Your task to perform on an android device: delete the emails in spam in the gmail app Image 0: 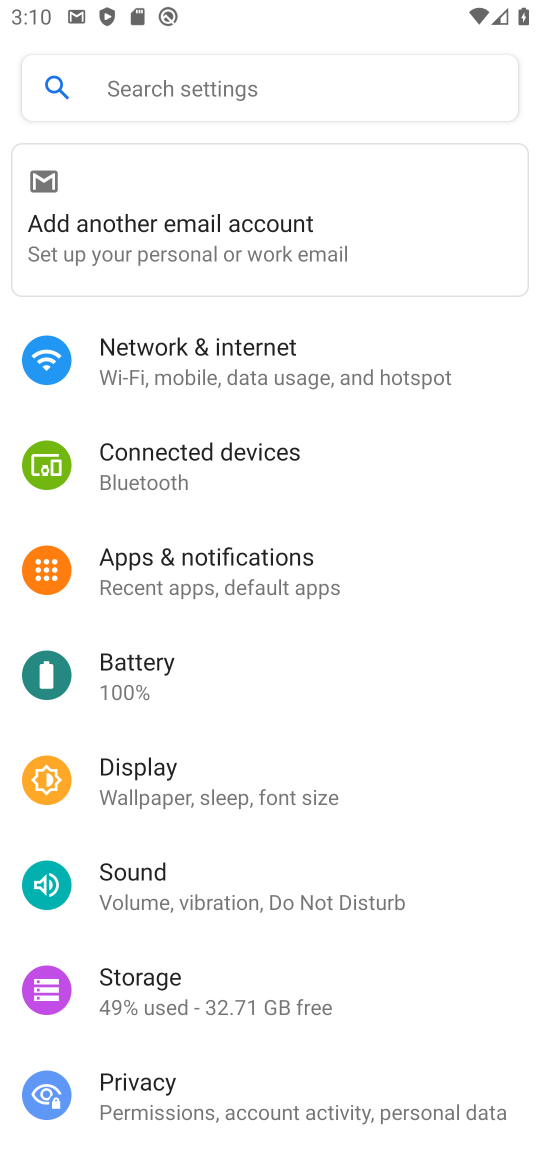
Step 0: press home button
Your task to perform on an android device: delete the emails in spam in the gmail app Image 1: 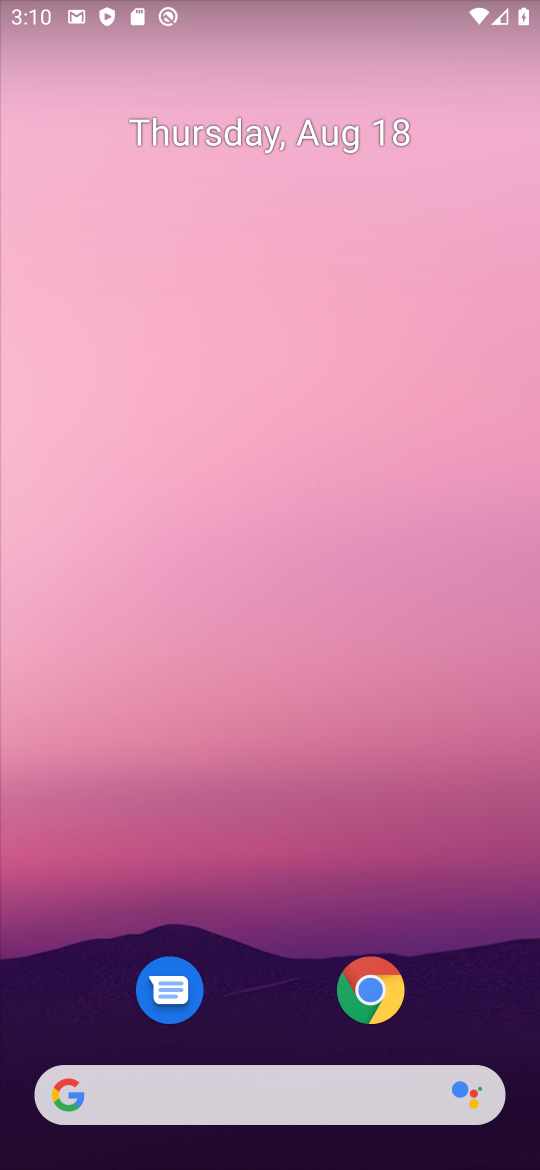
Step 1: drag from (262, 856) to (271, 5)
Your task to perform on an android device: delete the emails in spam in the gmail app Image 2: 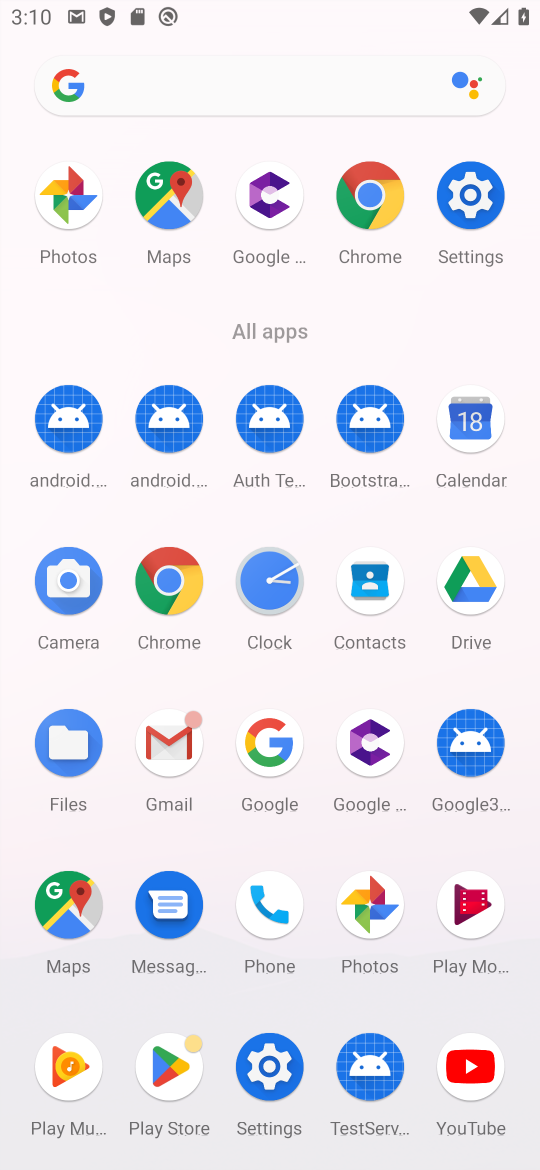
Step 2: click (174, 742)
Your task to perform on an android device: delete the emails in spam in the gmail app Image 3: 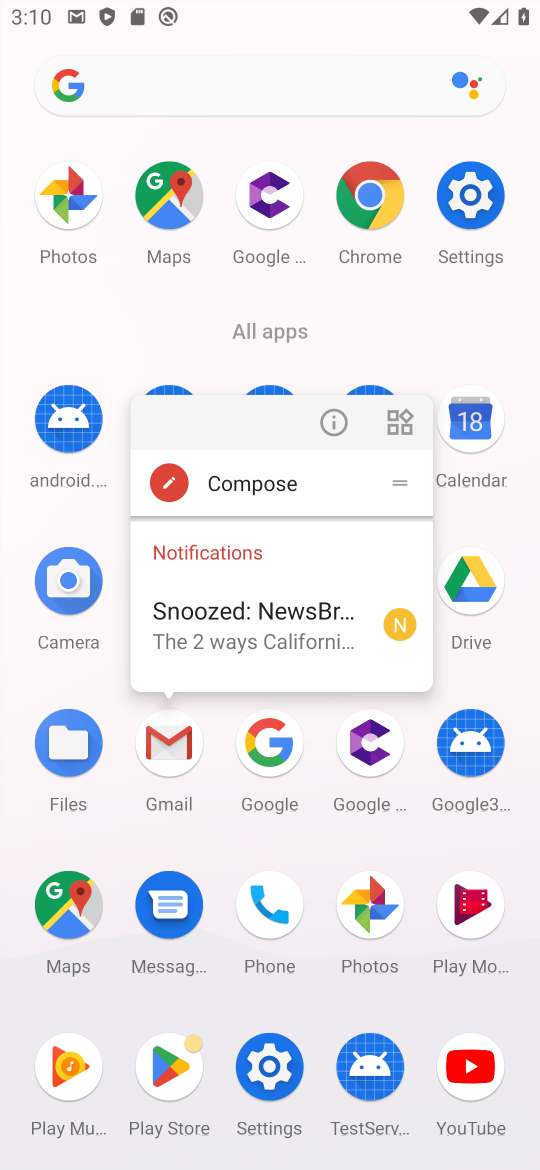
Step 3: click (166, 746)
Your task to perform on an android device: delete the emails in spam in the gmail app Image 4: 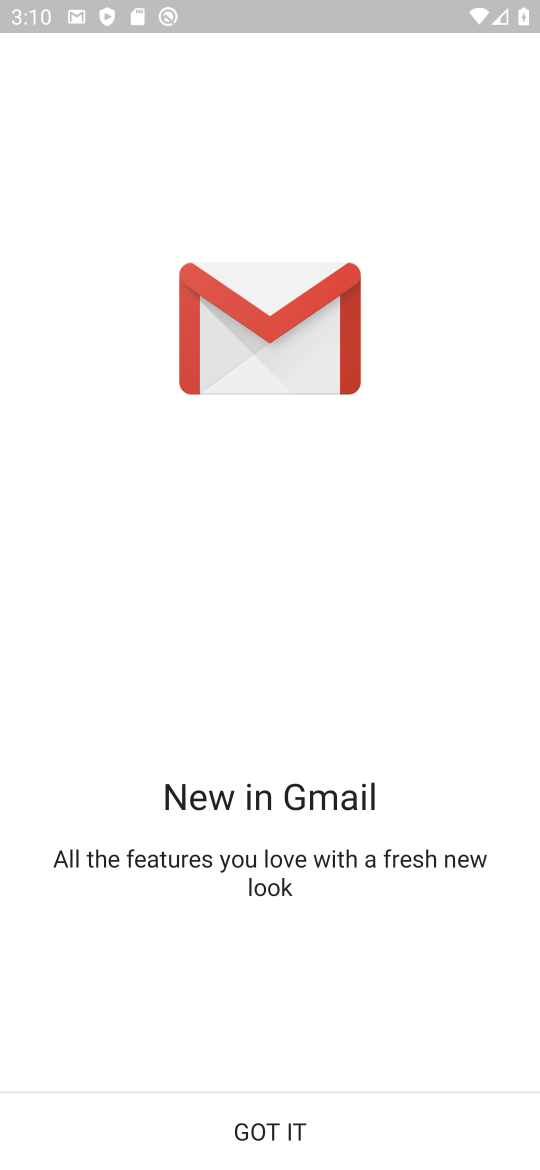
Step 4: click (242, 1128)
Your task to perform on an android device: delete the emails in spam in the gmail app Image 5: 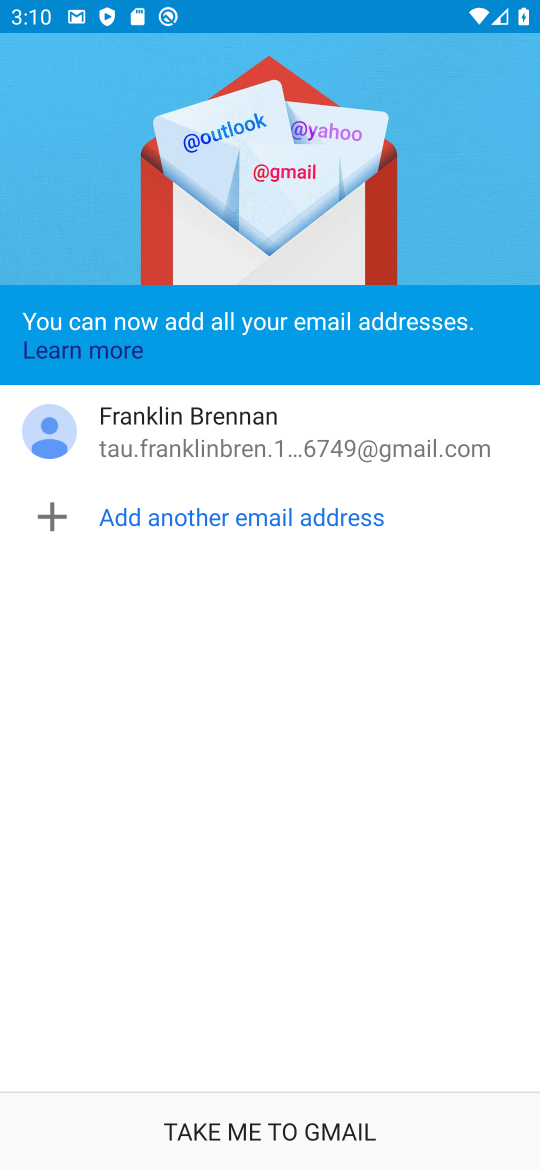
Step 5: click (275, 1112)
Your task to perform on an android device: delete the emails in spam in the gmail app Image 6: 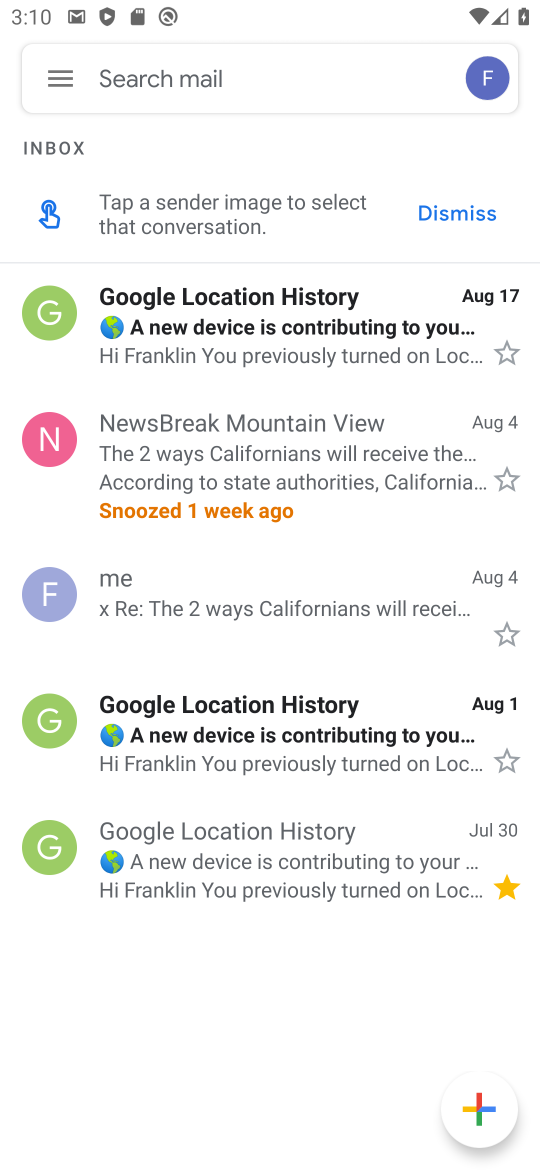
Step 6: click (41, 63)
Your task to perform on an android device: delete the emails in spam in the gmail app Image 7: 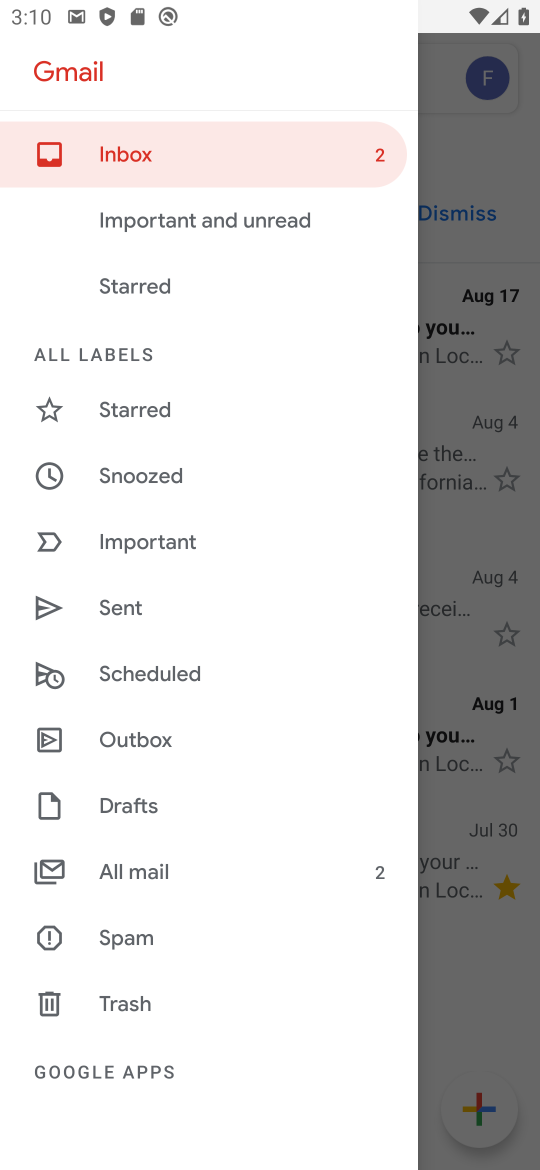
Step 7: click (113, 944)
Your task to perform on an android device: delete the emails in spam in the gmail app Image 8: 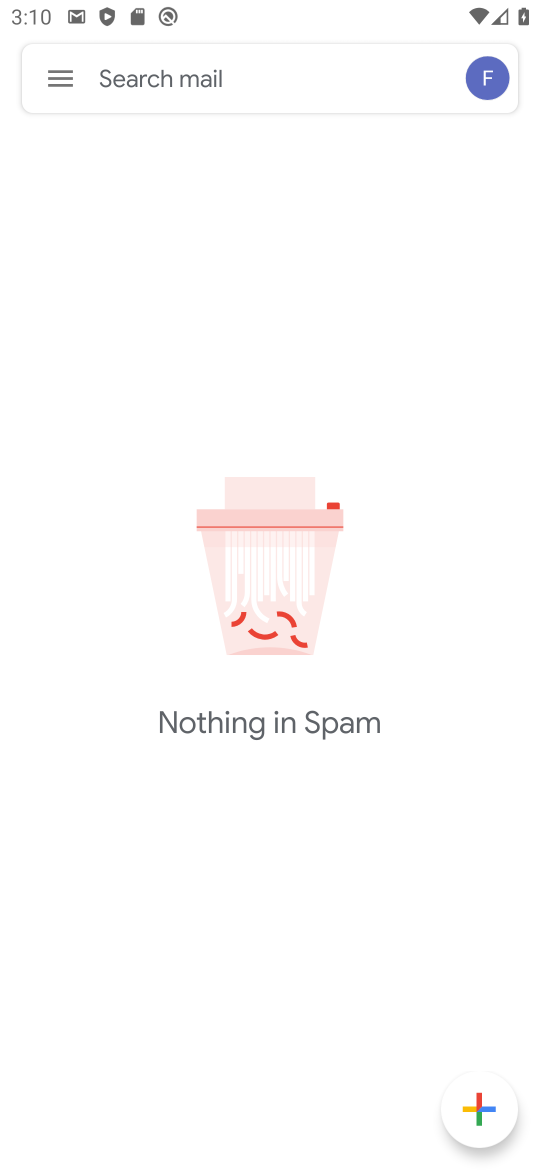
Step 8: task complete